Your task to perform on an android device: open a new tab in the chrome app Image 0: 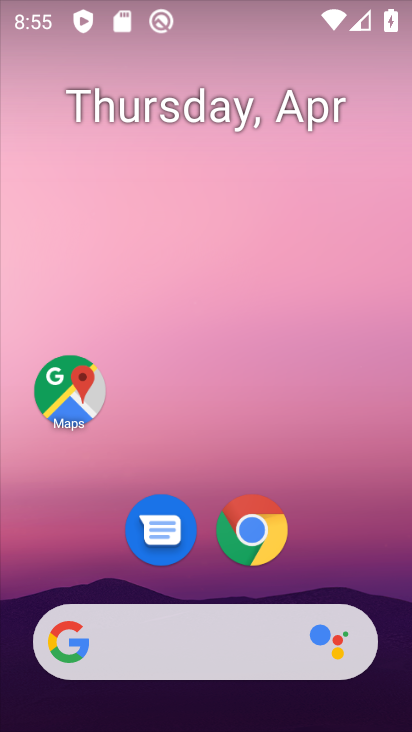
Step 0: drag from (308, 498) to (334, 73)
Your task to perform on an android device: open a new tab in the chrome app Image 1: 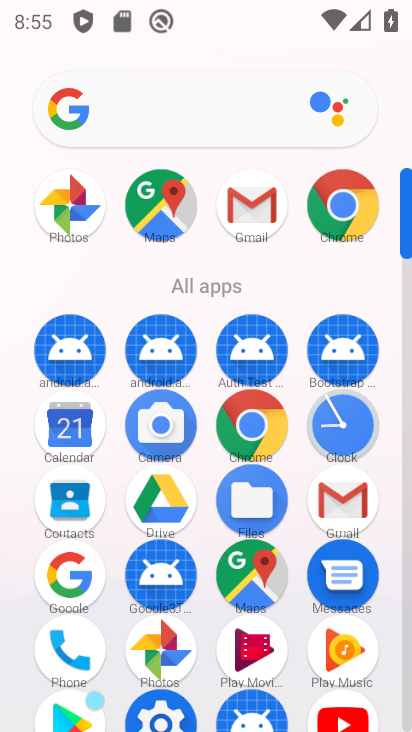
Step 1: click (261, 432)
Your task to perform on an android device: open a new tab in the chrome app Image 2: 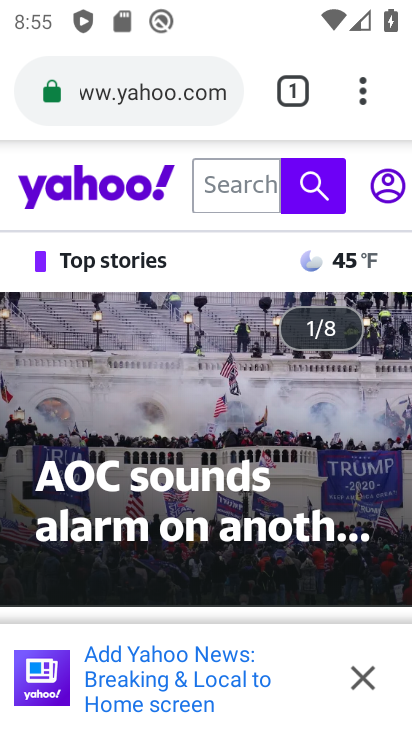
Step 2: task complete